Your task to perform on an android device: What's the weather today? Image 0: 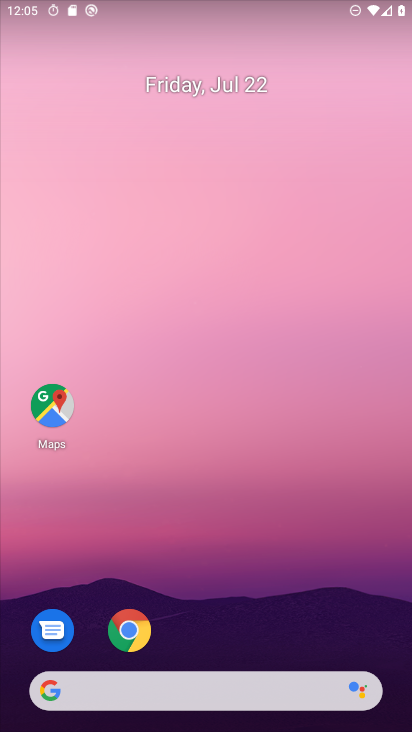
Step 0: press home button
Your task to perform on an android device: What's the weather today? Image 1: 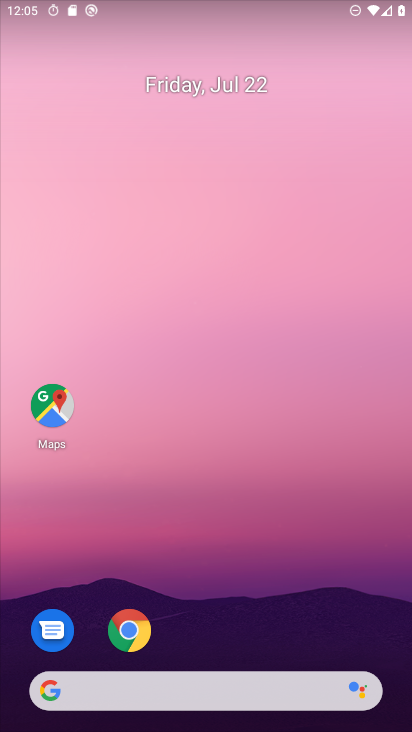
Step 1: click (52, 688)
Your task to perform on an android device: What's the weather today? Image 2: 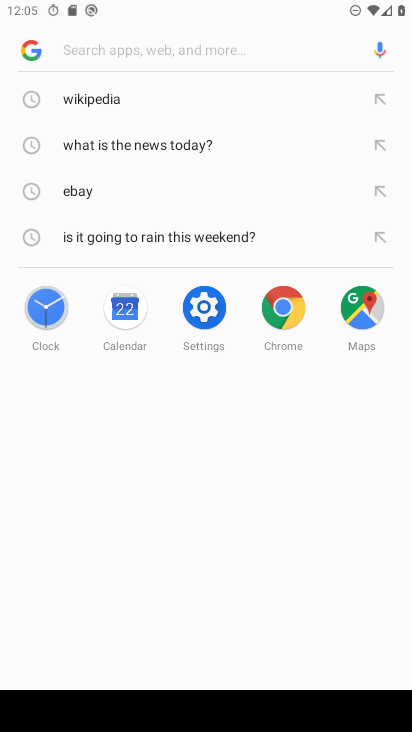
Step 2: type "What's the weather today?"
Your task to perform on an android device: What's the weather today? Image 3: 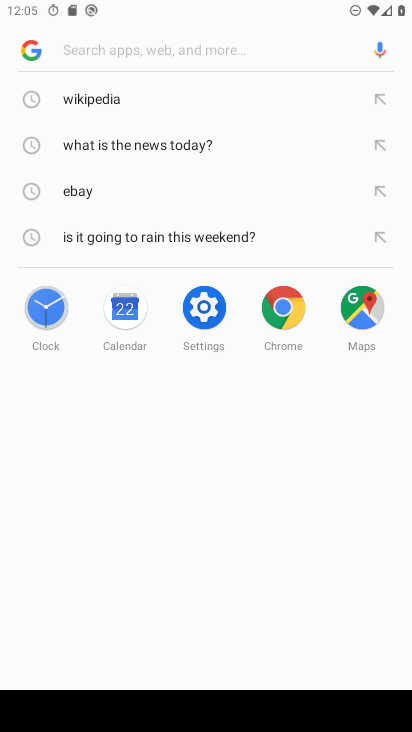
Step 3: click (76, 48)
Your task to perform on an android device: What's the weather today? Image 4: 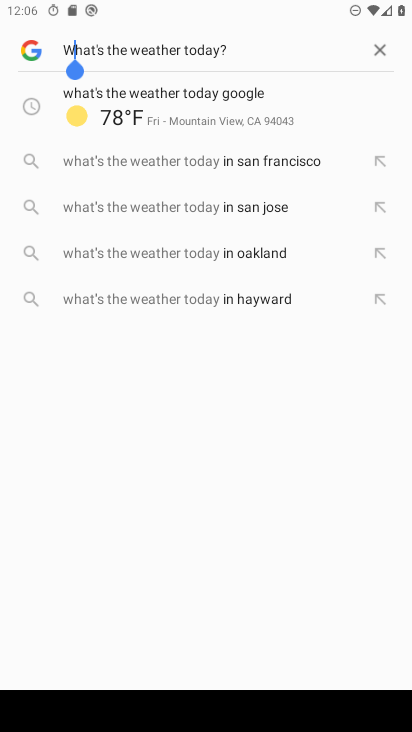
Step 4: press enter
Your task to perform on an android device: What's the weather today? Image 5: 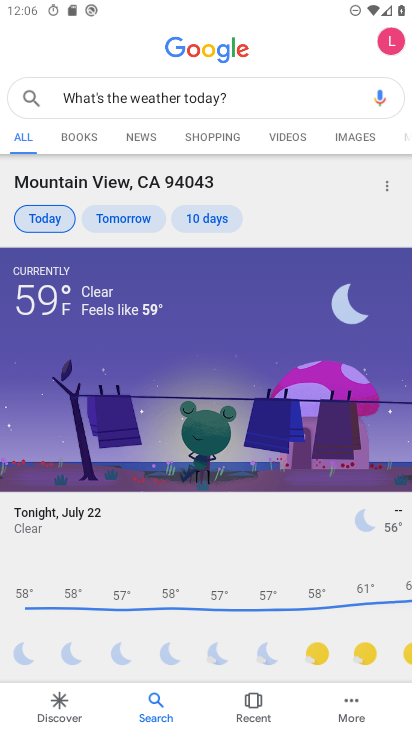
Step 5: task complete